Your task to perform on an android device: turn notification dots off Image 0: 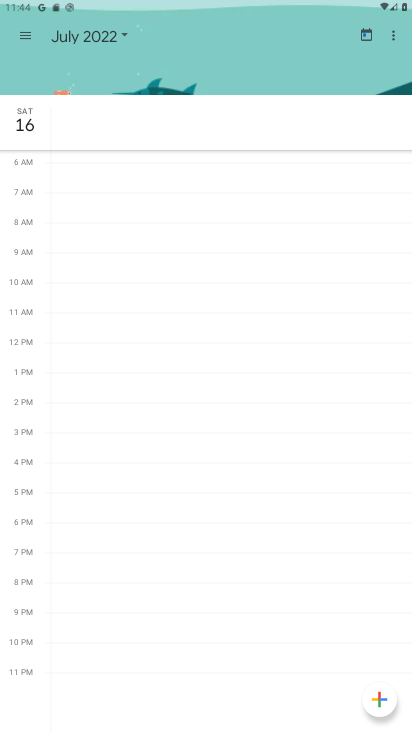
Step 0: press home button
Your task to perform on an android device: turn notification dots off Image 1: 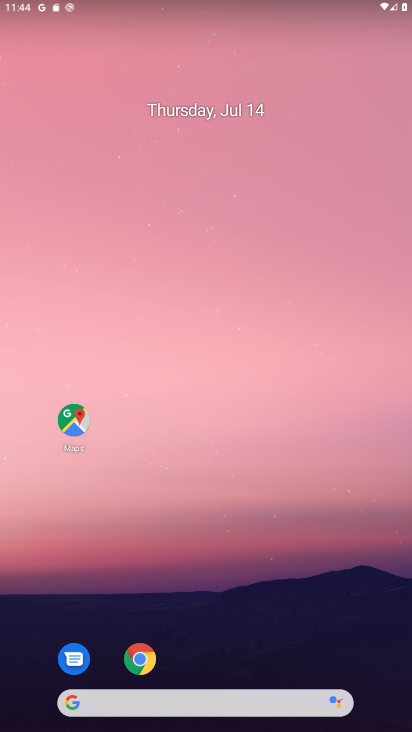
Step 1: drag from (237, 631) to (219, 232)
Your task to perform on an android device: turn notification dots off Image 2: 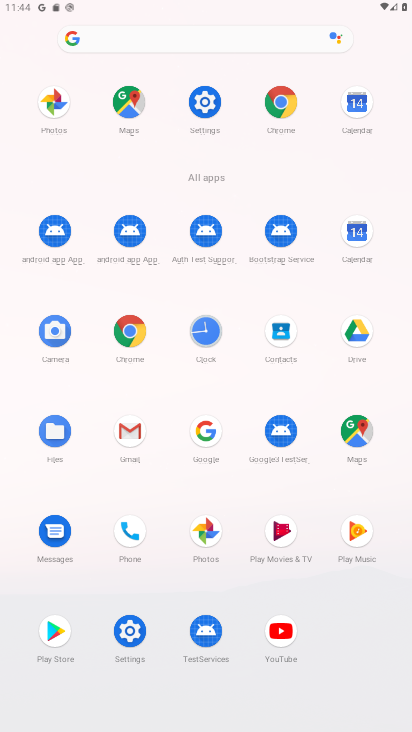
Step 2: click (195, 93)
Your task to perform on an android device: turn notification dots off Image 3: 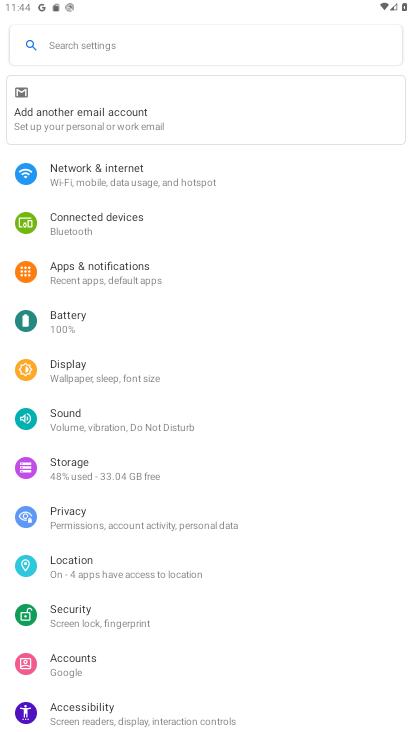
Step 3: click (145, 272)
Your task to perform on an android device: turn notification dots off Image 4: 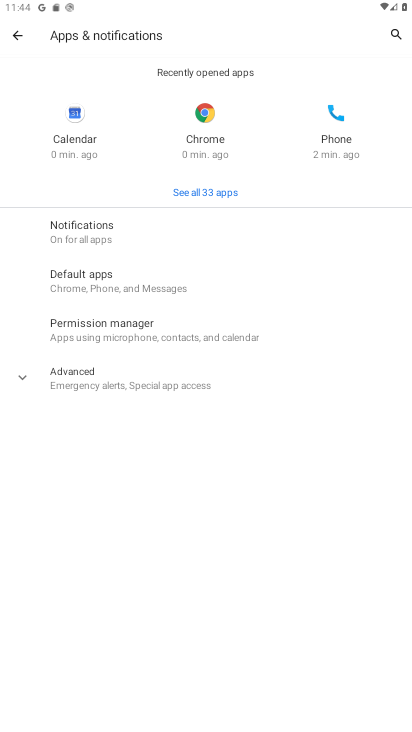
Step 4: click (134, 237)
Your task to perform on an android device: turn notification dots off Image 5: 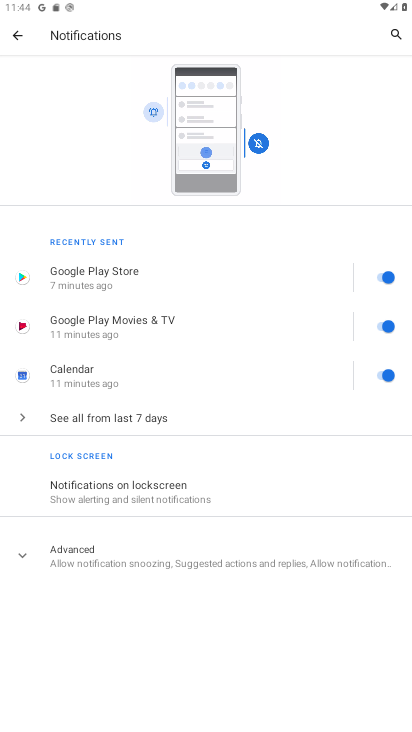
Step 5: click (214, 573)
Your task to perform on an android device: turn notification dots off Image 6: 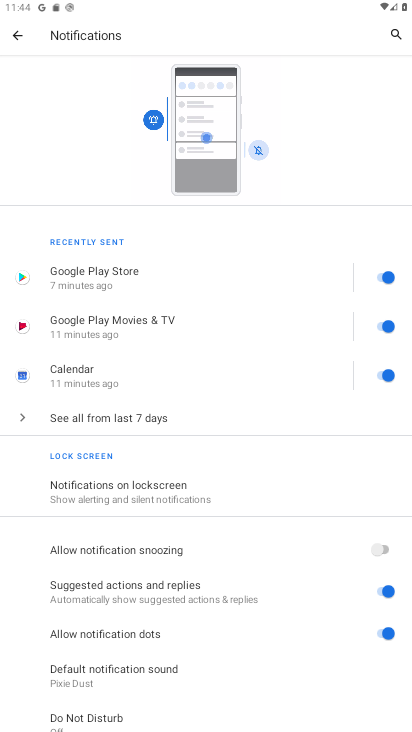
Step 6: click (385, 639)
Your task to perform on an android device: turn notification dots off Image 7: 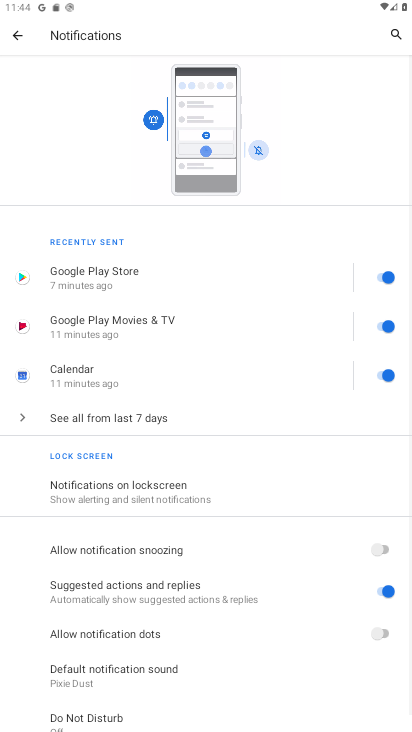
Step 7: task complete